Your task to perform on an android device: change alarm snooze length Image 0: 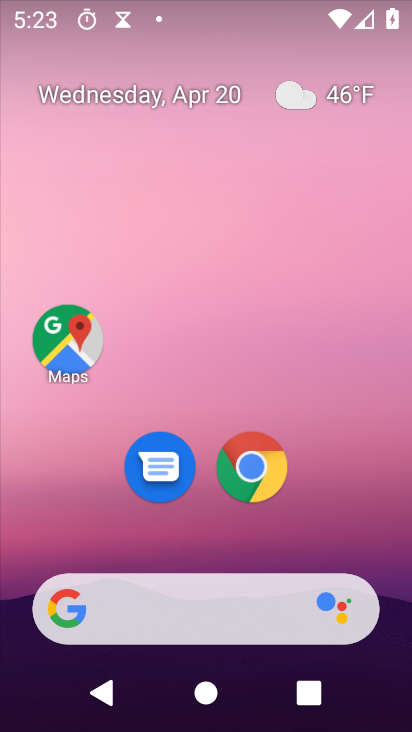
Step 0: drag from (197, 538) to (221, 129)
Your task to perform on an android device: change alarm snooze length Image 1: 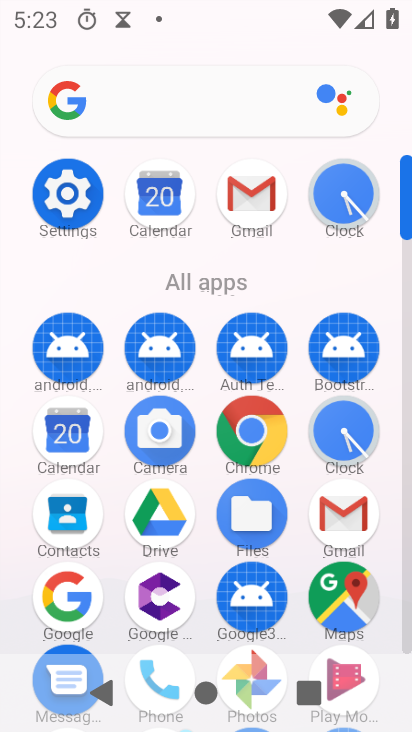
Step 1: click (344, 200)
Your task to perform on an android device: change alarm snooze length Image 2: 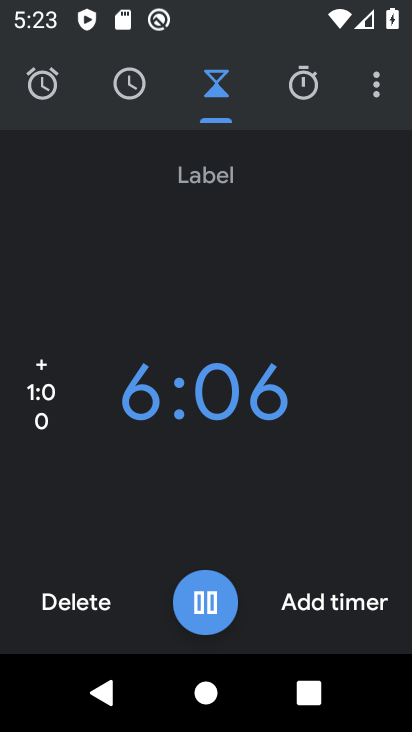
Step 2: click (94, 606)
Your task to perform on an android device: change alarm snooze length Image 3: 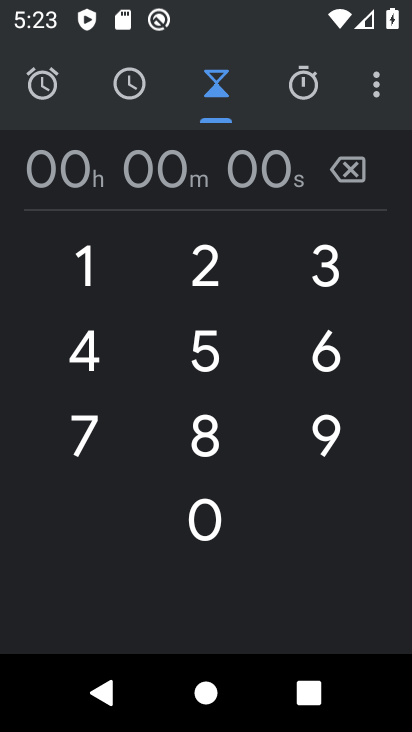
Step 3: click (368, 85)
Your task to perform on an android device: change alarm snooze length Image 4: 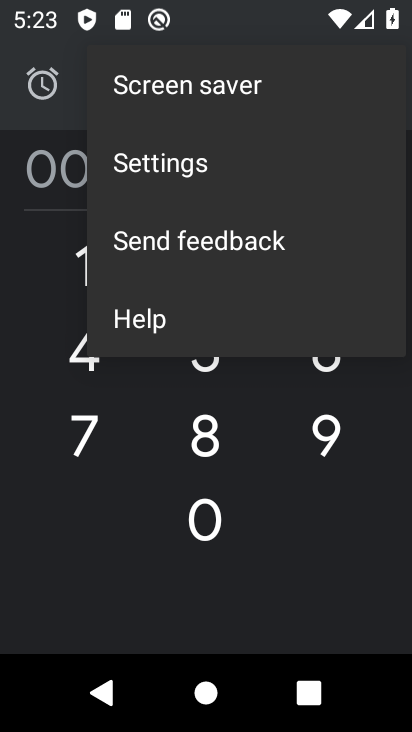
Step 4: click (179, 156)
Your task to perform on an android device: change alarm snooze length Image 5: 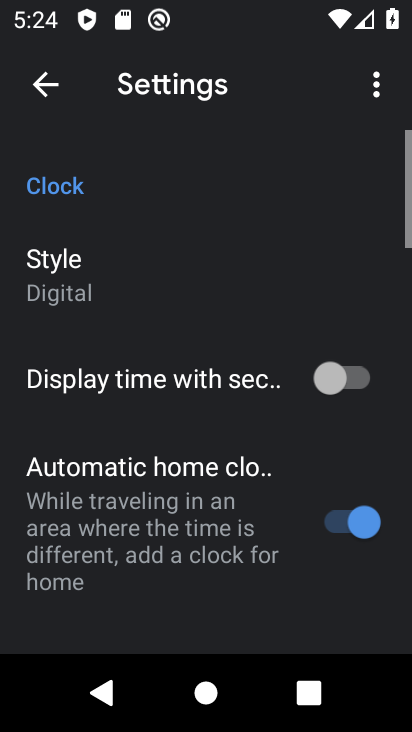
Step 5: drag from (131, 517) to (199, 234)
Your task to perform on an android device: change alarm snooze length Image 6: 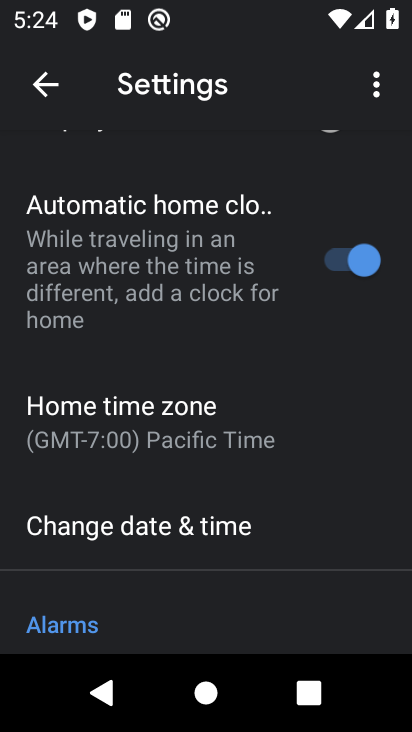
Step 6: drag from (197, 477) to (264, 127)
Your task to perform on an android device: change alarm snooze length Image 7: 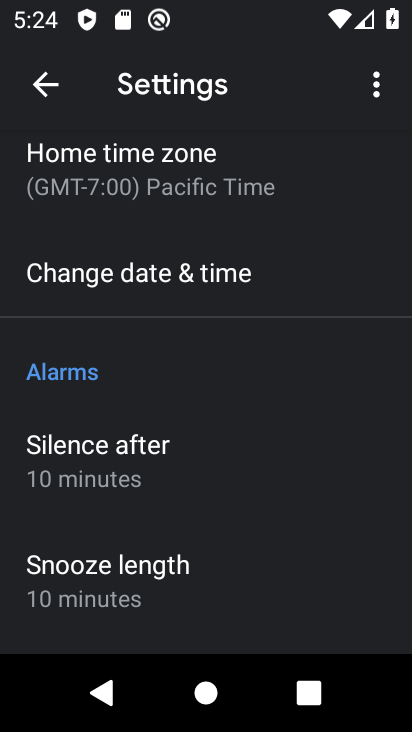
Step 7: click (145, 574)
Your task to perform on an android device: change alarm snooze length Image 8: 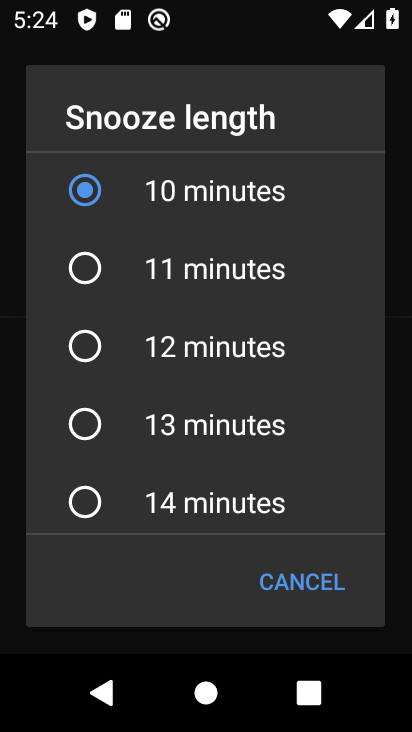
Step 8: click (91, 499)
Your task to perform on an android device: change alarm snooze length Image 9: 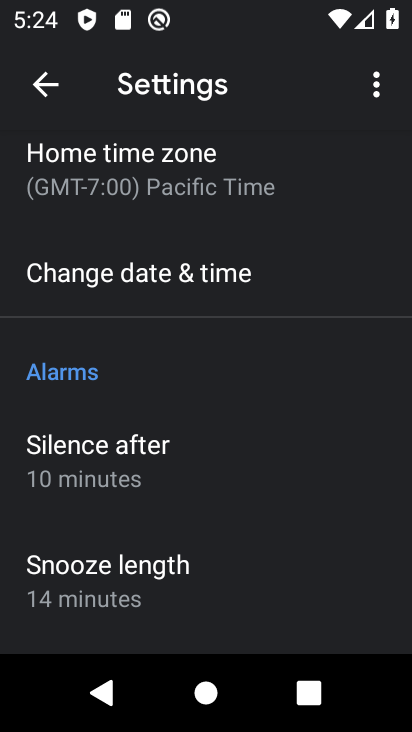
Step 9: task complete